Your task to perform on an android device: allow cookies in the chrome app Image 0: 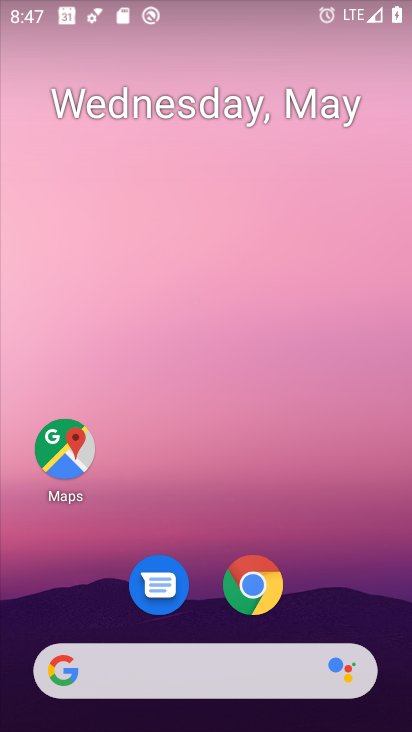
Step 0: click (265, 565)
Your task to perform on an android device: allow cookies in the chrome app Image 1: 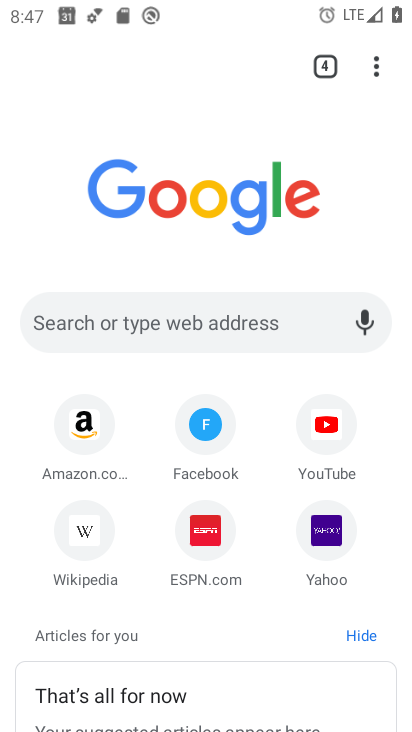
Step 1: click (370, 65)
Your task to perform on an android device: allow cookies in the chrome app Image 2: 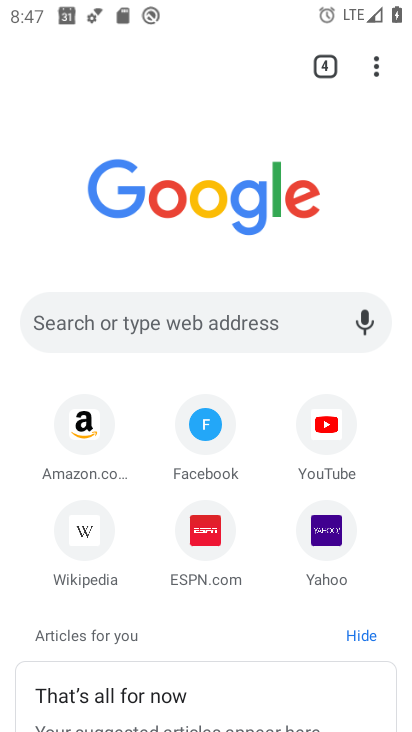
Step 2: drag from (370, 65) to (270, 631)
Your task to perform on an android device: allow cookies in the chrome app Image 3: 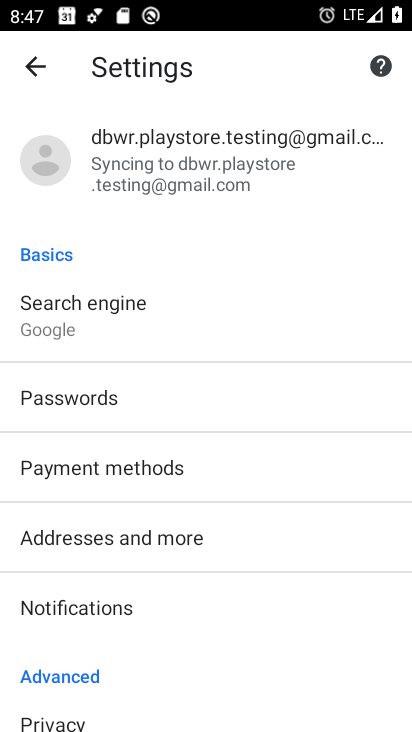
Step 3: drag from (260, 479) to (258, 95)
Your task to perform on an android device: allow cookies in the chrome app Image 4: 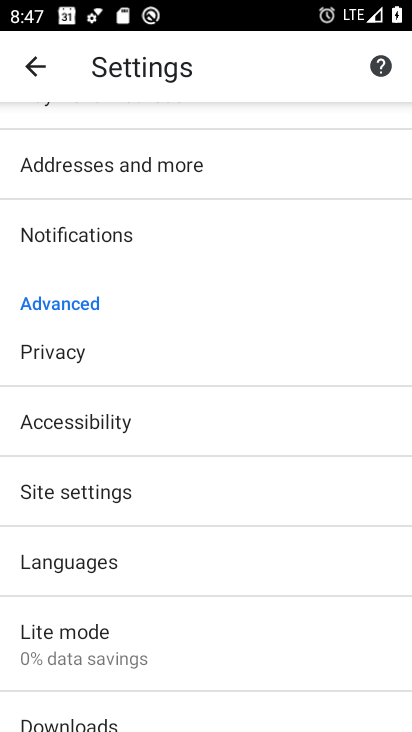
Step 4: click (189, 492)
Your task to perform on an android device: allow cookies in the chrome app Image 5: 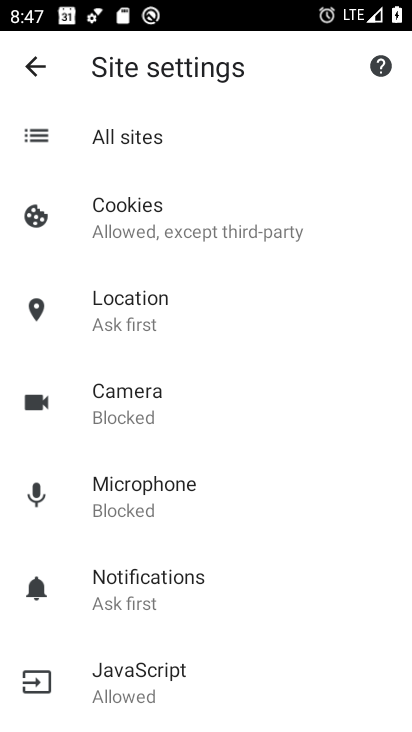
Step 5: task complete